Your task to perform on an android device: star an email in the gmail app Image 0: 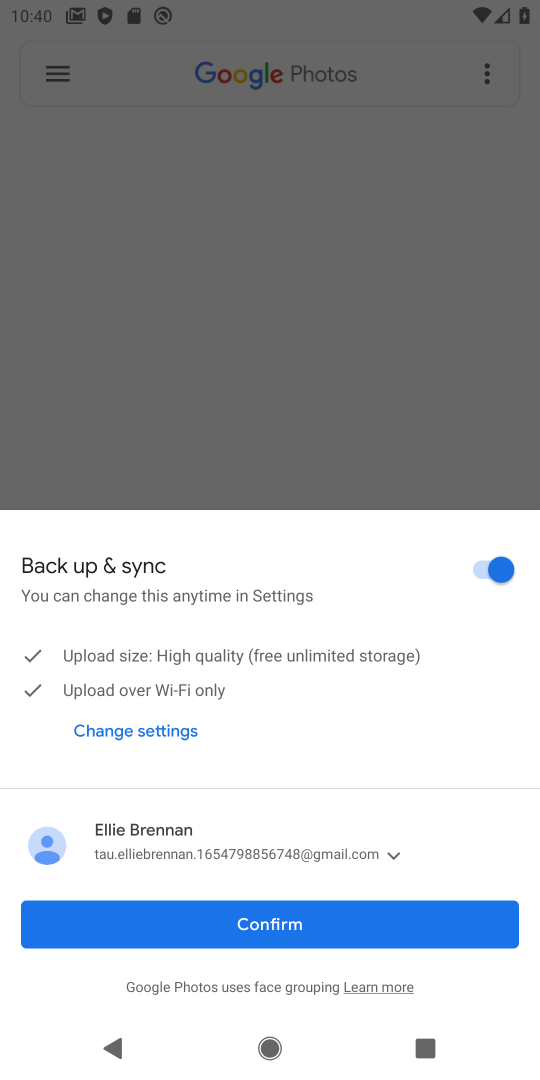
Step 0: press home button
Your task to perform on an android device: star an email in the gmail app Image 1: 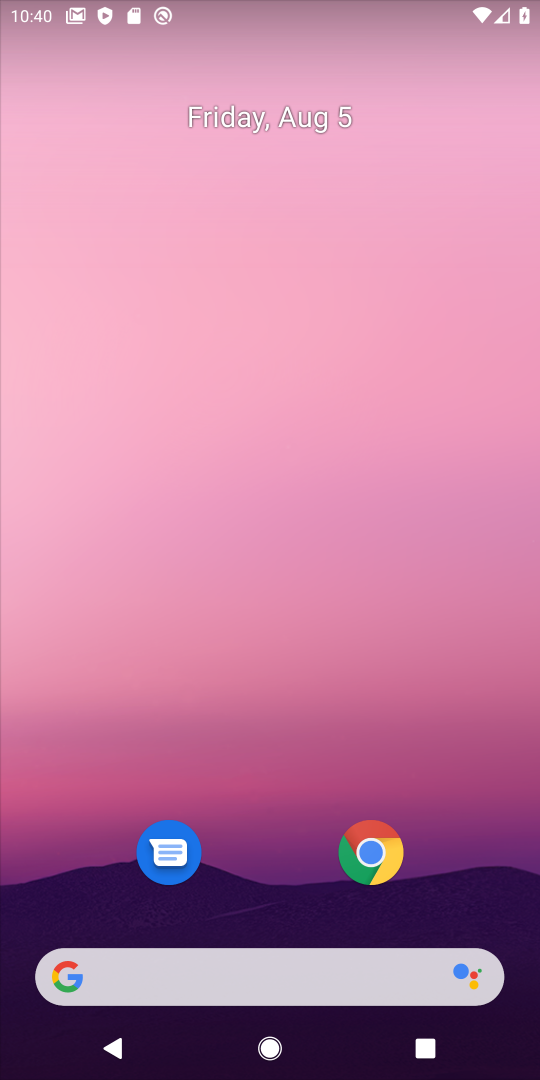
Step 1: drag from (255, 964) to (323, 416)
Your task to perform on an android device: star an email in the gmail app Image 2: 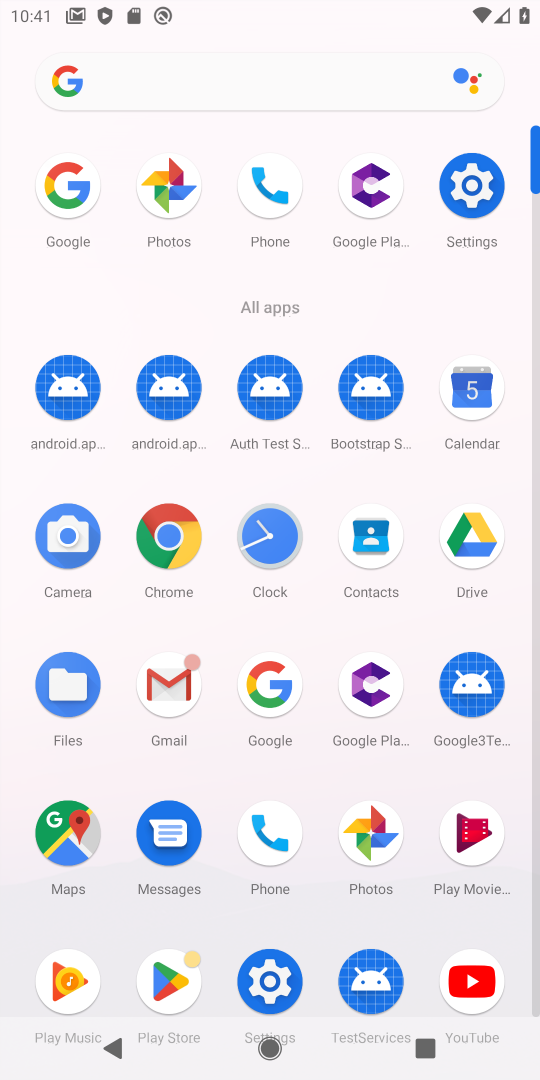
Step 2: click (184, 681)
Your task to perform on an android device: star an email in the gmail app Image 3: 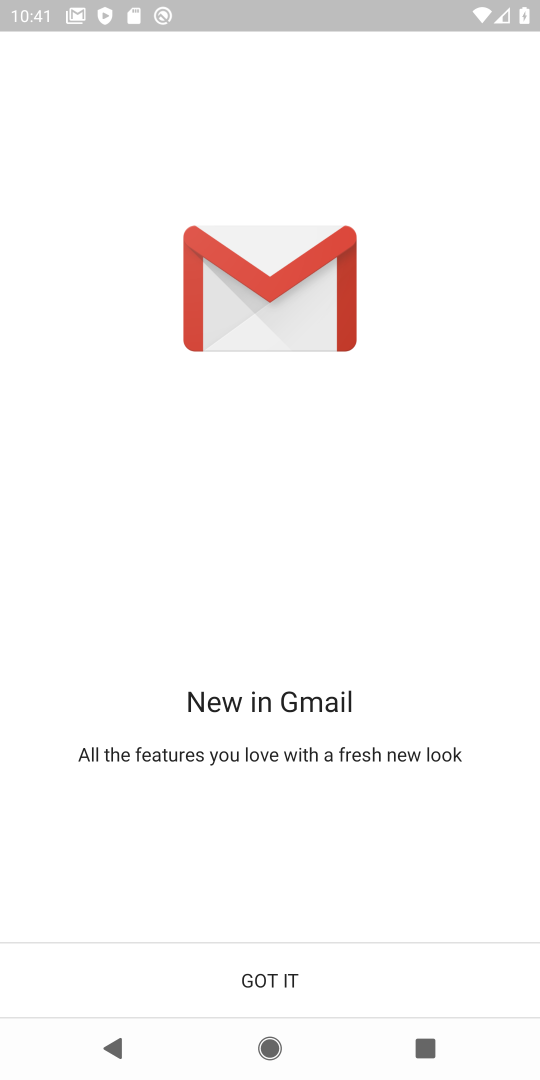
Step 3: click (268, 985)
Your task to perform on an android device: star an email in the gmail app Image 4: 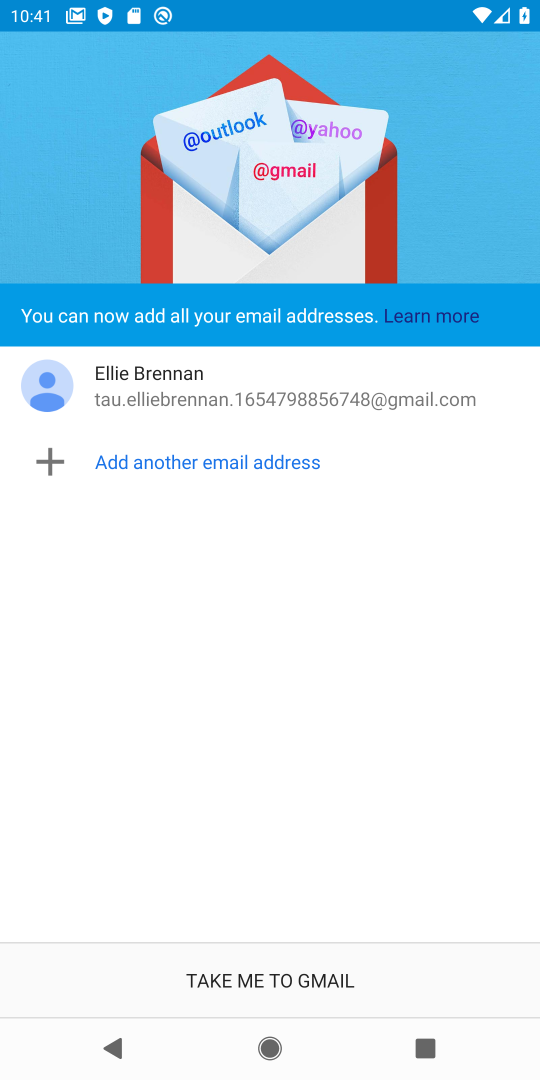
Step 4: click (268, 985)
Your task to perform on an android device: star an email in the gmail app Image 5: 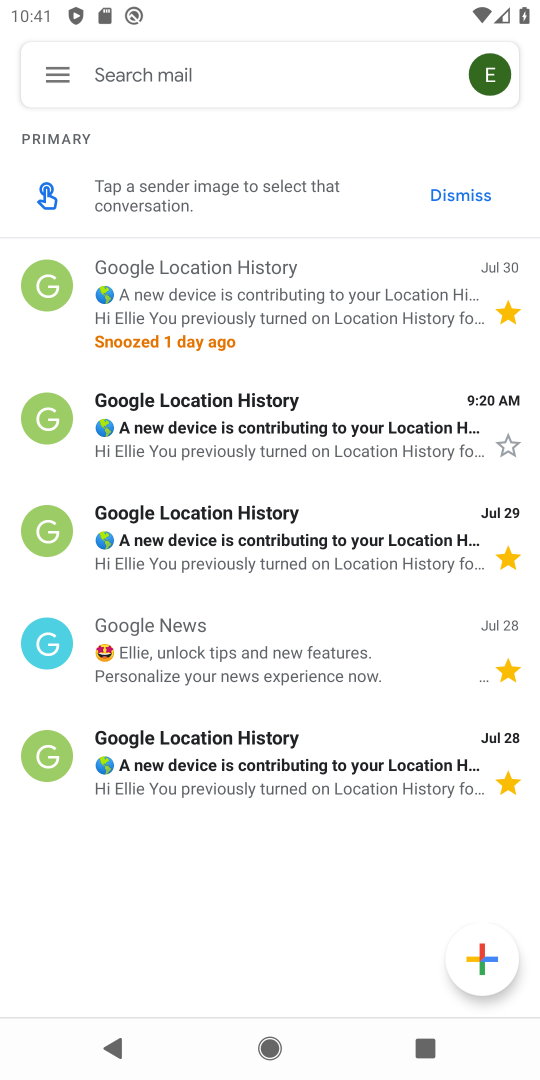
Step 5: click (500, 439)
Your task to perform on an android device: star an email in the gmail app Image 6: 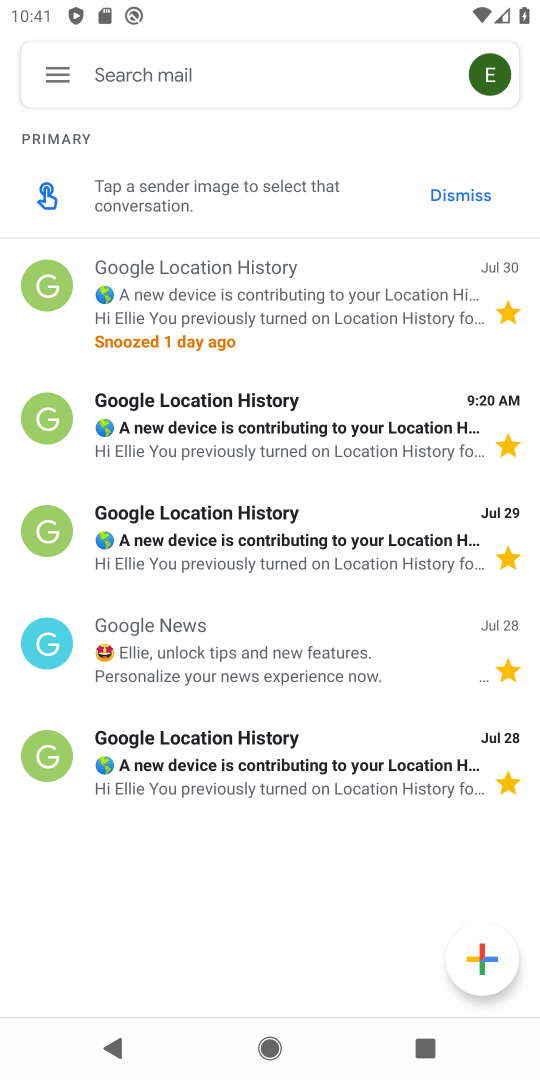
Step 6: task complete